Your task to perform on an android device: change the upload size in google photos Image 0: 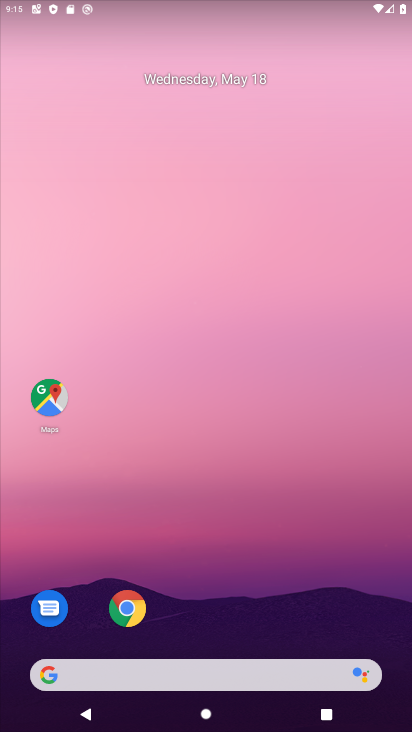
Step 0: drag from (34, 563) to (196, 164)
Your task to perform on an android device: change the upload size in google photos Image 1: 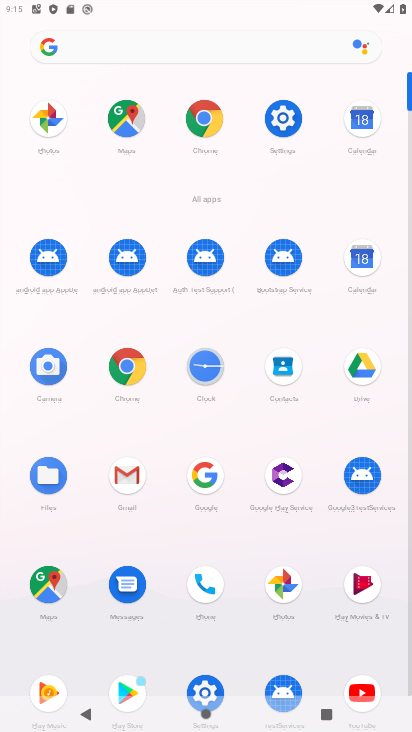
Step 1: click (45, 123)
Your task to perform on an android device: change the upload size in google photos Image 2: 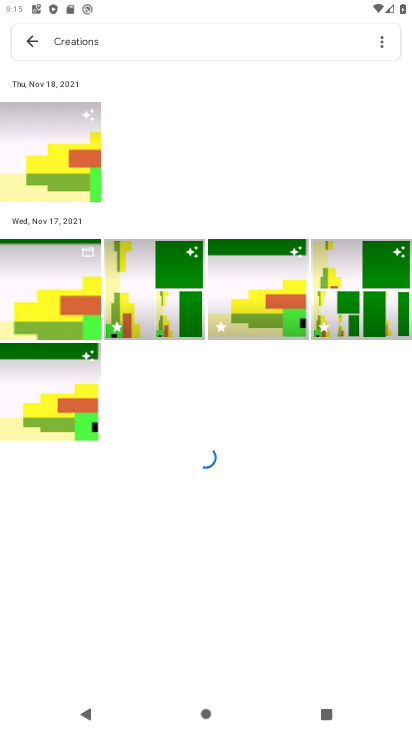
Step 2: click (25, 40)
Your task to perform on an android device: change the upload size in google photos Image 3: 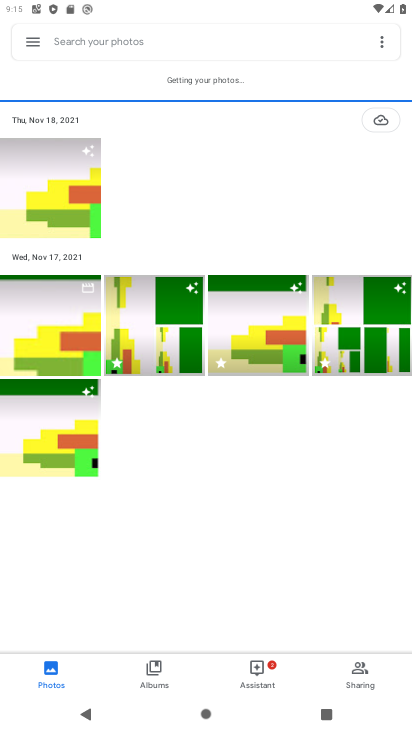
Step 3: click (25, 40)
Your task to perform on an android device: change the upload size in google photos Image 4: 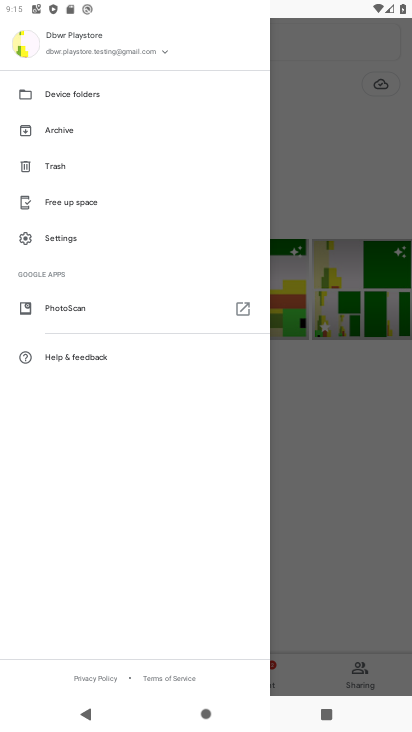
Step 4: click (78, 233)
Your task to perform on an android device: change the upload size in google photos Image 5: 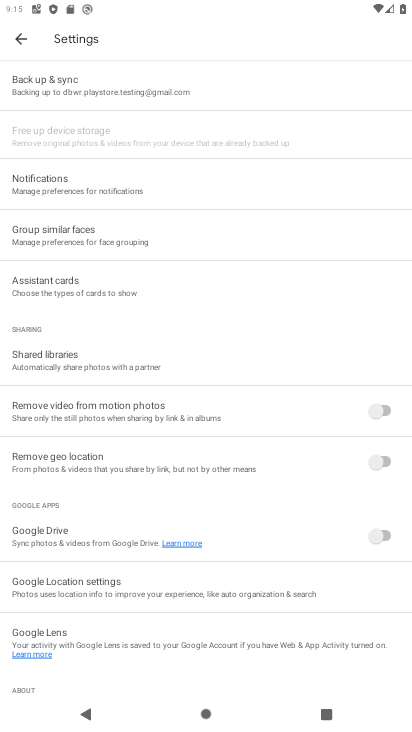
Step 5: click (79, 84)
Your task to perform on an android device: change the upload size in google photos Image 6: 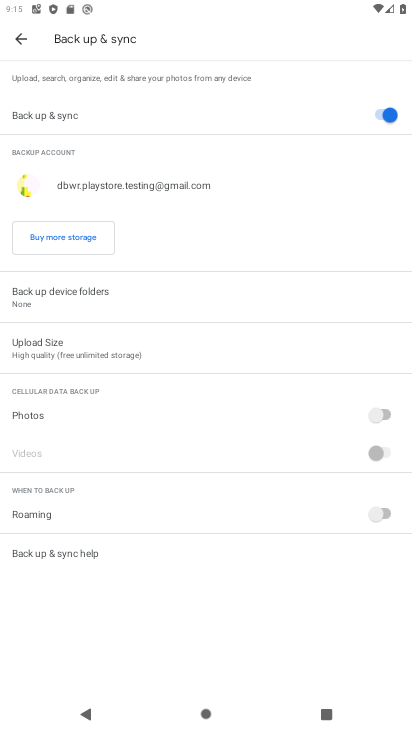
Step 6: click (95, 344)
Your task to perform on an android device: change the upload size in google photos Image 7: 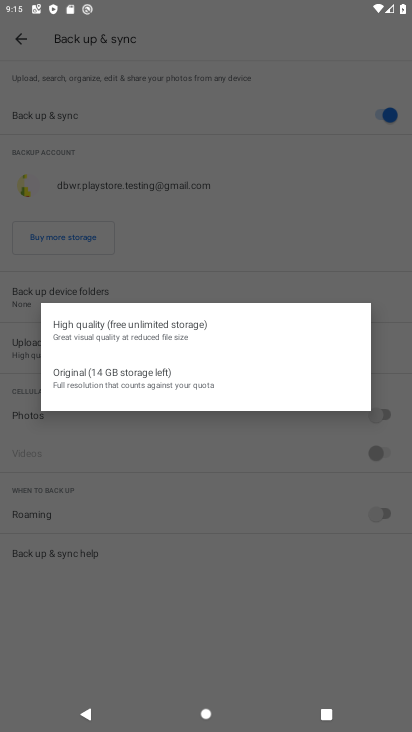
Step 7: click (90, 376)
Your task to perform on an android device: change the upload size in google photos Image 8: 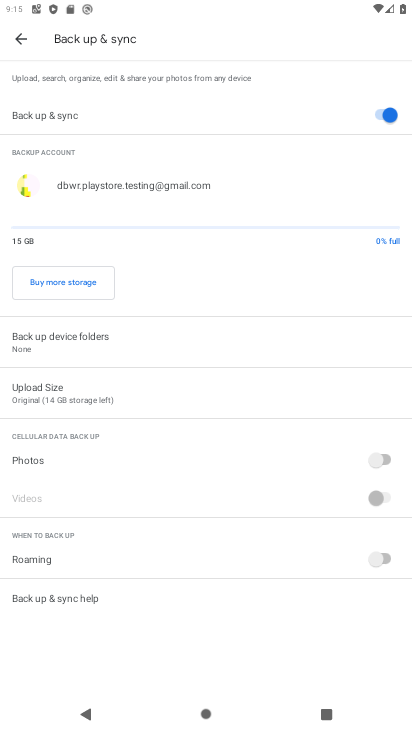
Step 8: task complete